Your task to perform on an android device: set default search engine in the chrome app Image 0: 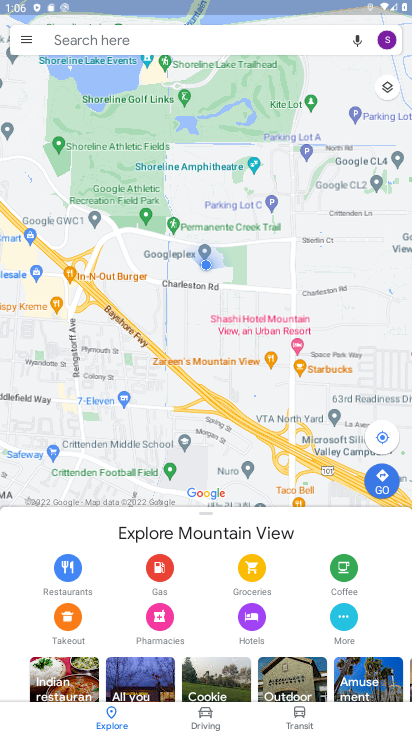
Step 0: press home button
Your task to perform on an android device: set default search engine in the chrome app Image 1: 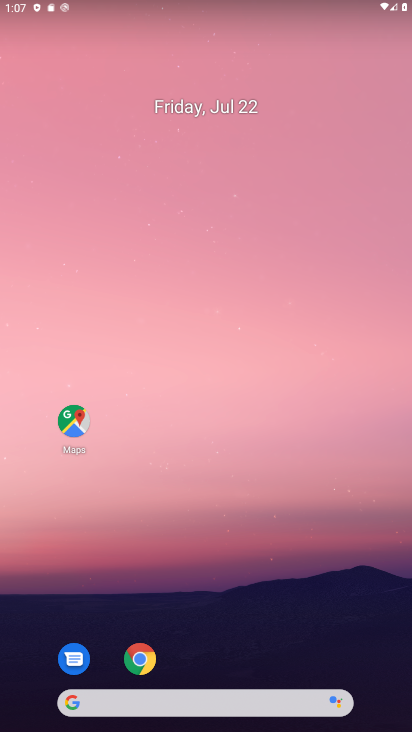
Step 1: click (149, 645)
Your task to perform on an android device: set default search engine in the chrome app Image 2: 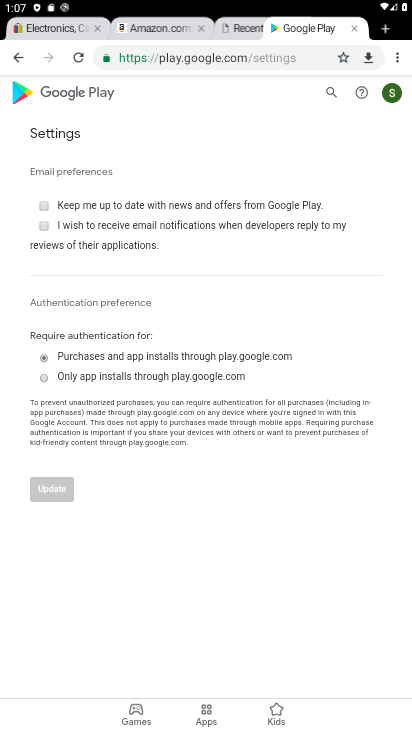
Step 2: click (385, 36)
Your task to perform on an android device: set default search engine in the chrome app Image 3: 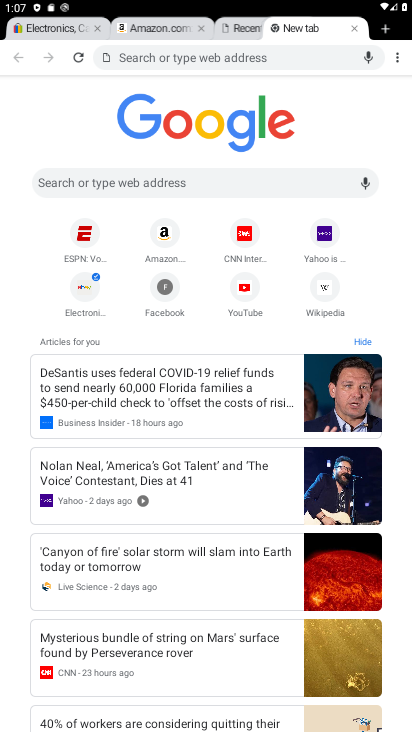
Step 3: task complete